Your task to perform on an android device: Open Amazon Image 0: 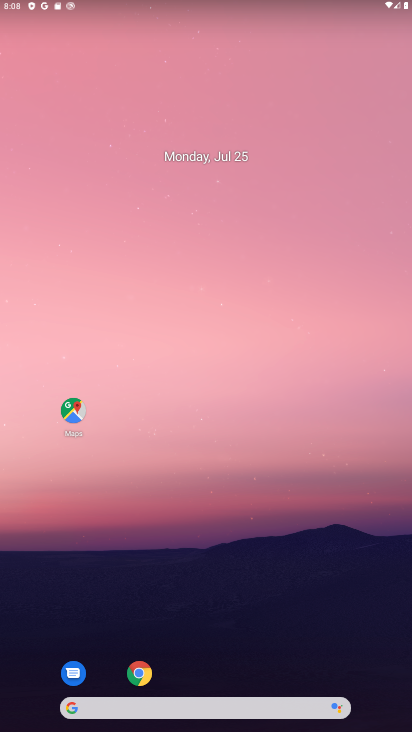
Step 0: click (143, 664)
Your task to perform on an android device: Open Amazon Image 1: 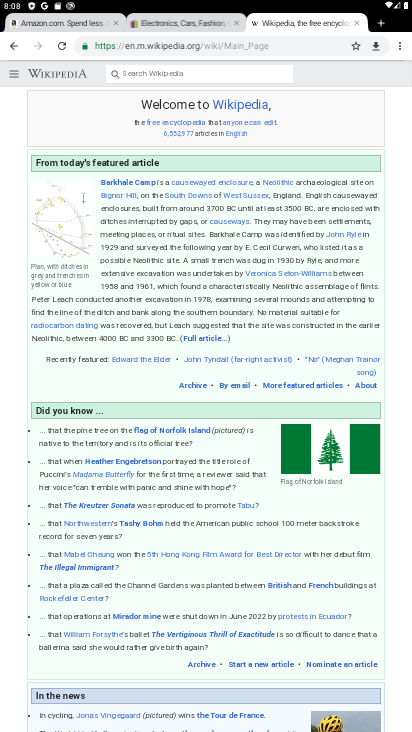
Step 1: click (44, 14)
Your task to perform on an android device: Open Amazon Image 2: 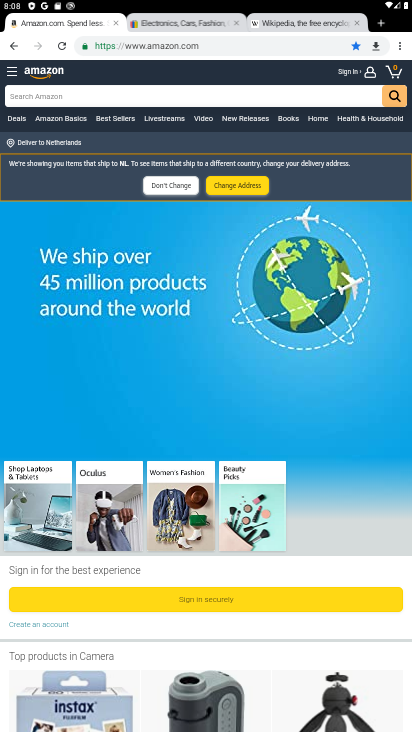
Step 2: task complete